Your task to perform on an android device: add a label to a message in the gmail app Image 0: 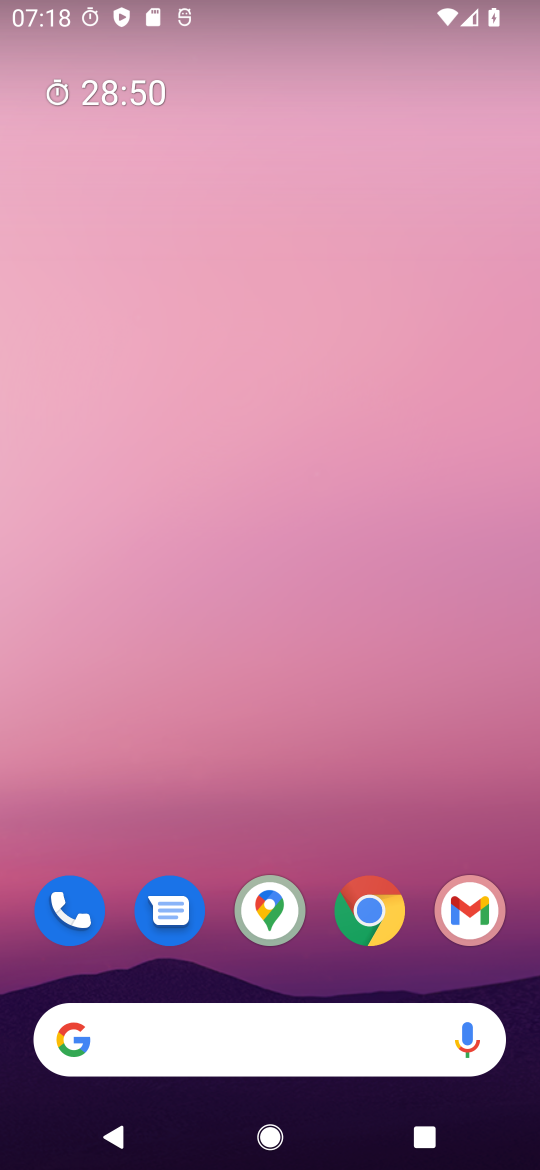
Step 0: drag from (307, 1043) to (402, 44)
Your task to perform on an android device: add a label to a message in the gmail app Image 1: 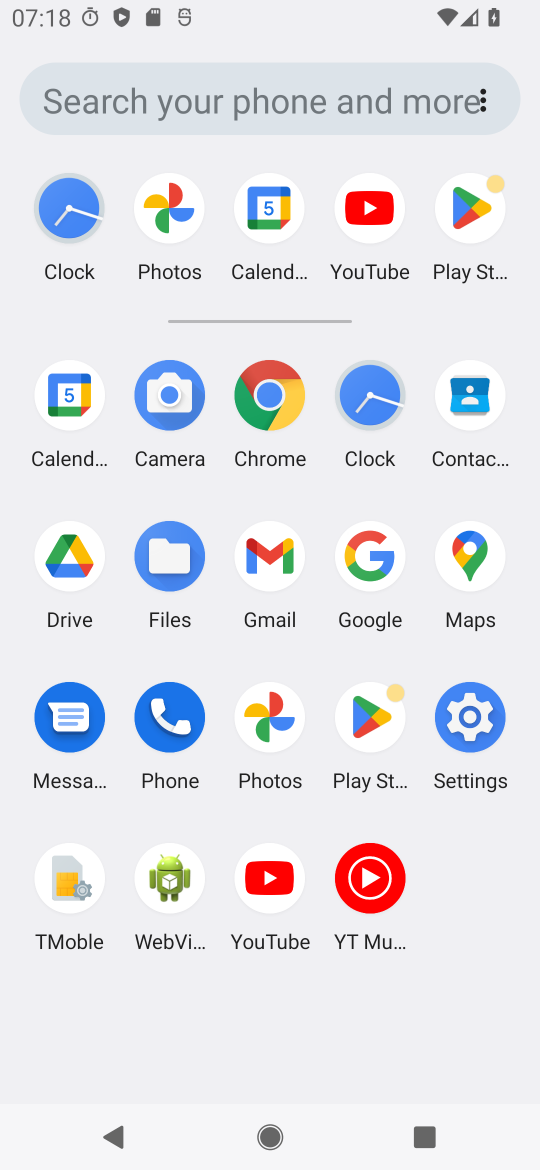
Step 1: click (253, 543)
Your task to perform on an android device: add a label to a message in the gmail app Image 2: 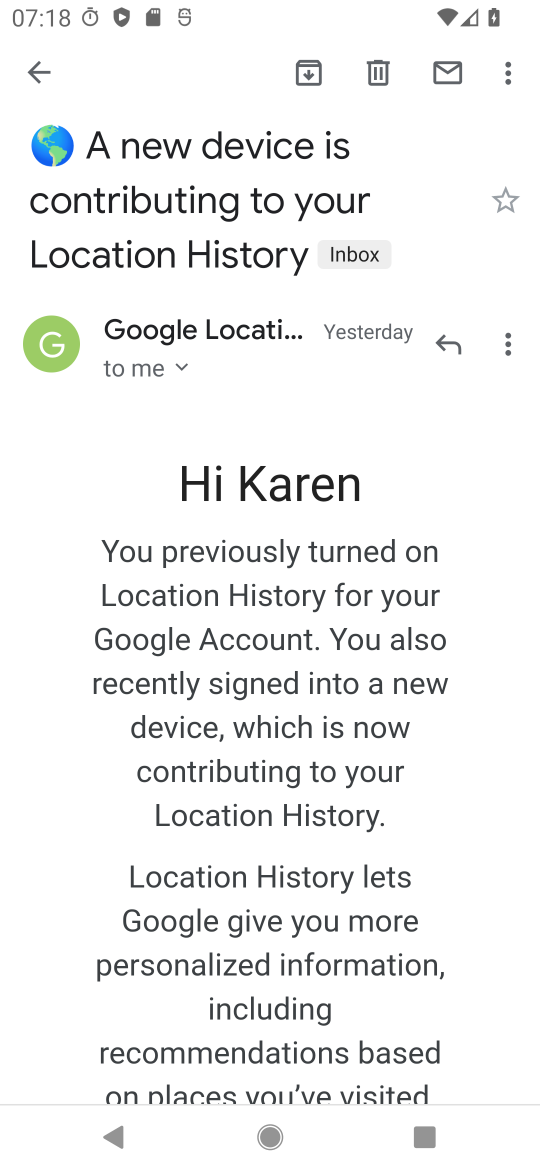
Step 2: click (501, 67)
Your task to perform on an android device: add a label to a message in the gmail app Image 3: 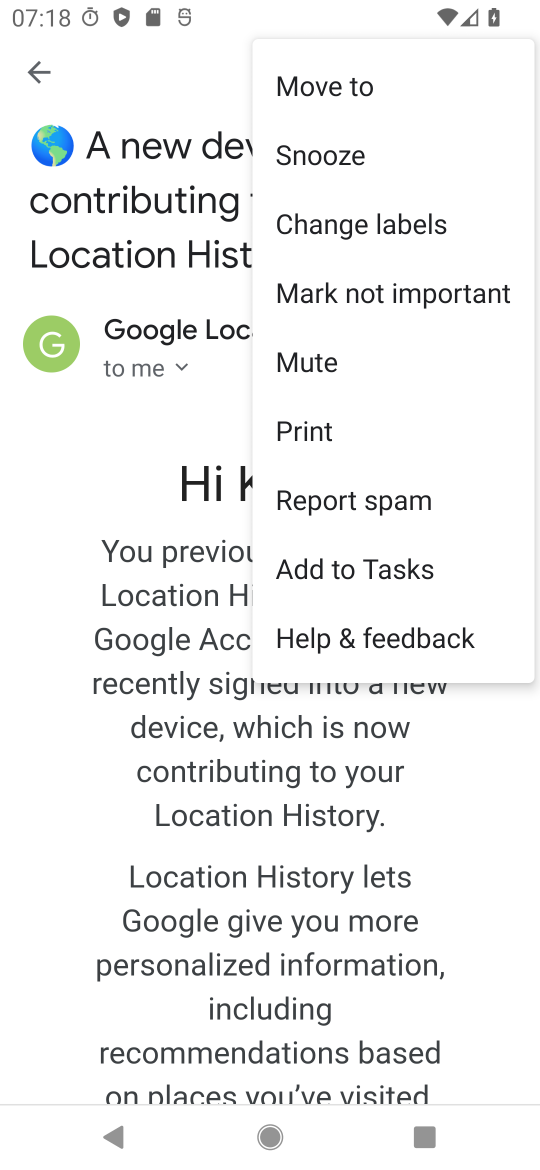
Step 3: click (366, 214)
Your task to perform on an android device: add a label to a message in the gmail app Image 4: 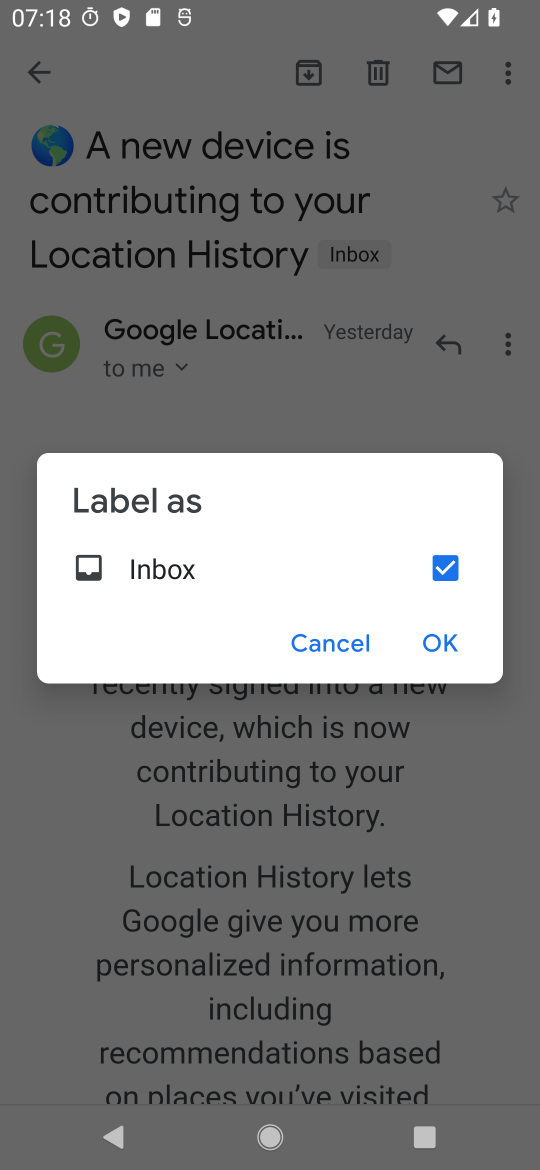
Step 4: click (441, 640)
Your task to perform on an android device: add a label to a message in the gmail app Image 5: 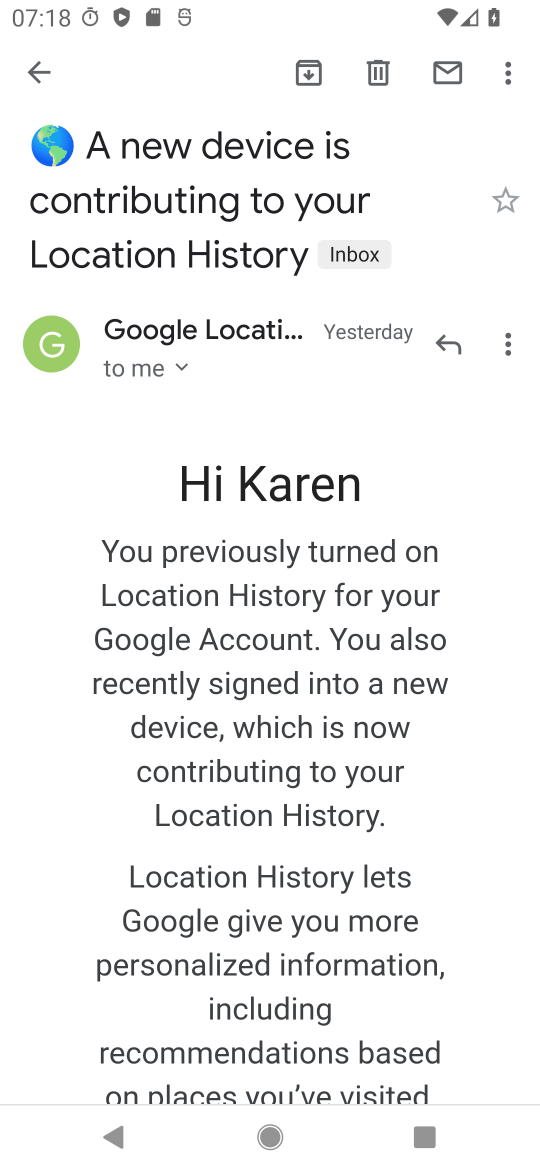
Step 5: task complete